Your task to perform on an android device: refresh tabs in the chrome app Image 0: 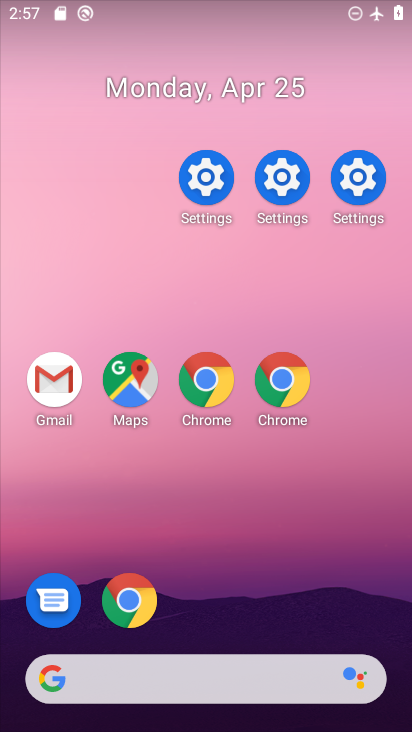
Step 0: drag from (281, 689) to (132, 199)
Your task to perform on an android device: refresh tabs in the chrome app Image 1: 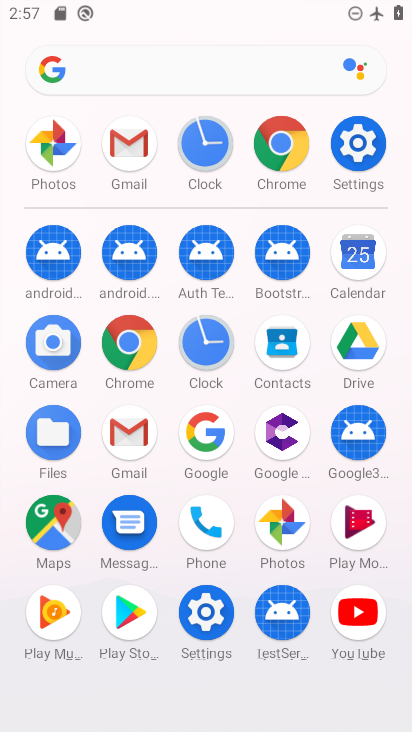
Step 1: click (283, 148)
Your task to perform on an android device: refresh tabs in the chrome app Image 2: 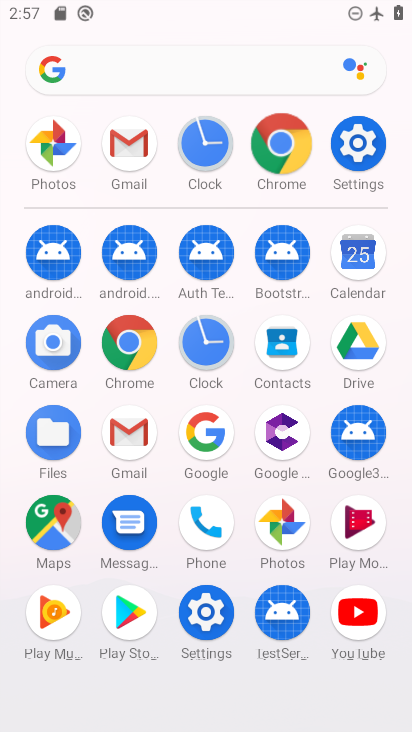
Step 2: click (305, 85)
Your task to perform on an android device: refresh tabs in the chrome app Image 3: 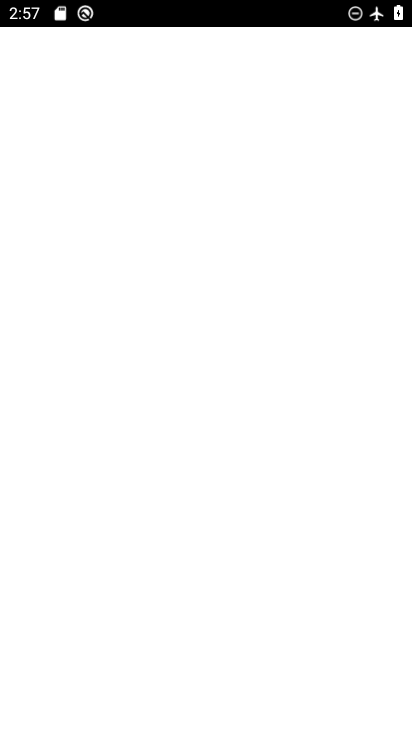
Step 3: click (266, 140)
Your task to perform on an android device: refresh tabs in the chrome app Image 4: 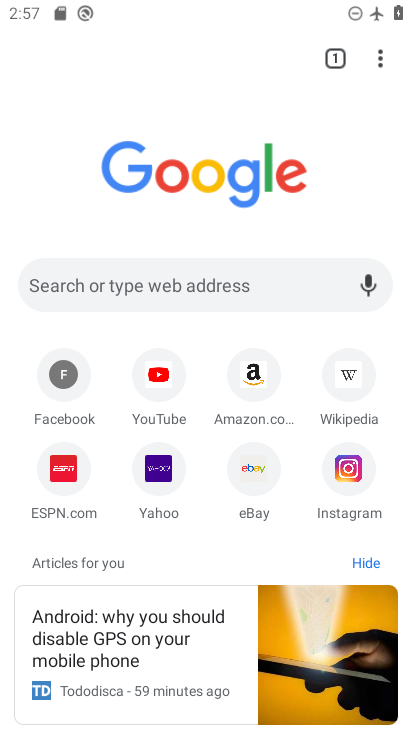
Step 4: click (379, 56)
Your task to perform on an android device: refresh tabs in the chrome app Image 5: 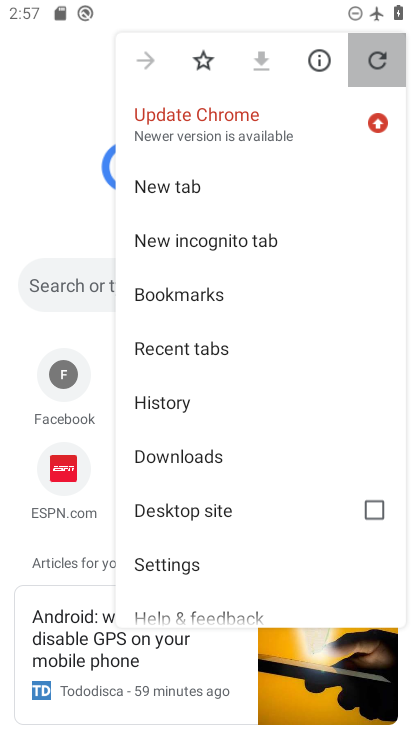
Step 5: click (376, 56)
Your task to perform on an android device: refresh tabs in the chrome app Image 6: 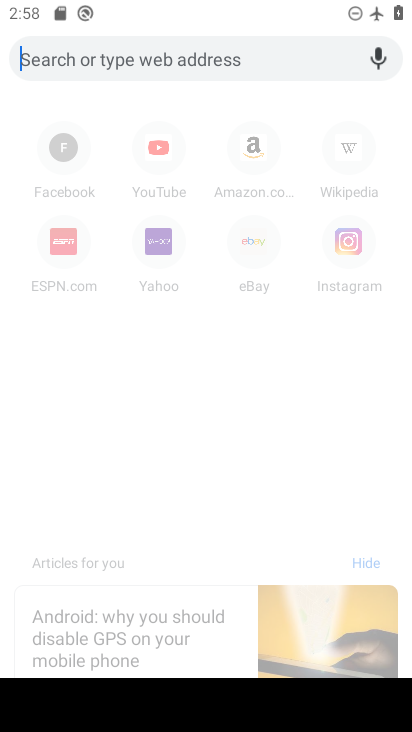
Step 6: task complete